Your task to perform on an android device: Open internet settings Image 0: 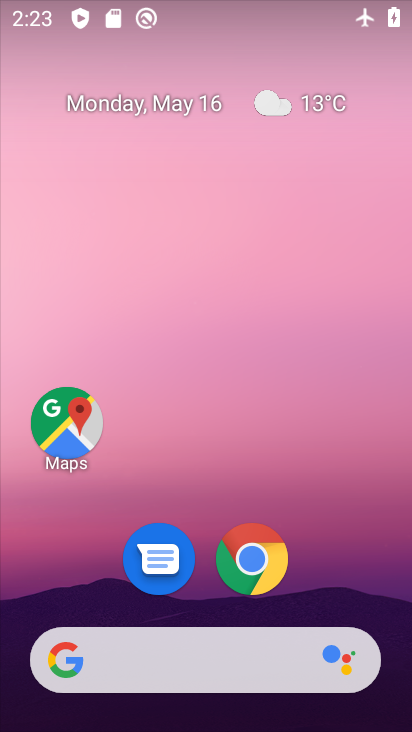
Step 0: drag from (222, 612) to (176, 18)
Your task to perform on an android device: Open internet settings Image 1: 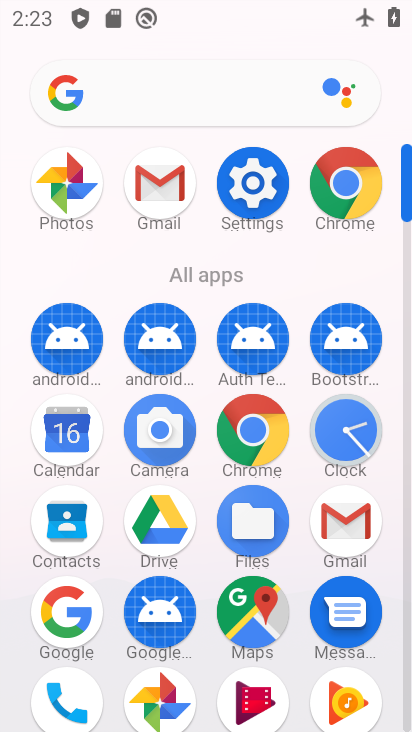
Step 1: click (267, 195)
Your task to perform on an android device: Open internet settings Image 2: 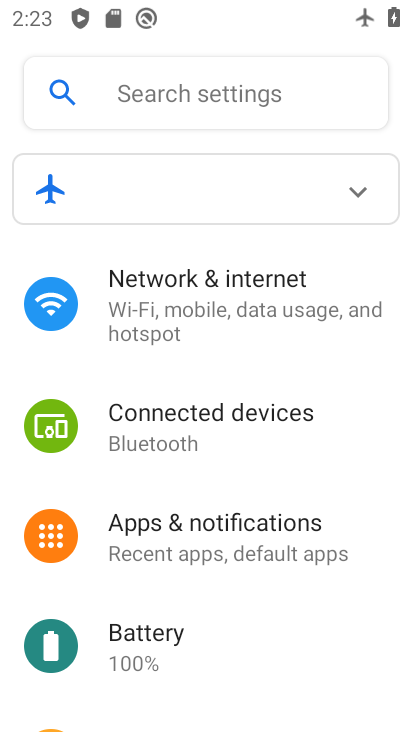
Step 2: click (166, 306)
Your task to perform on an android device: Open internet settings Image 3: 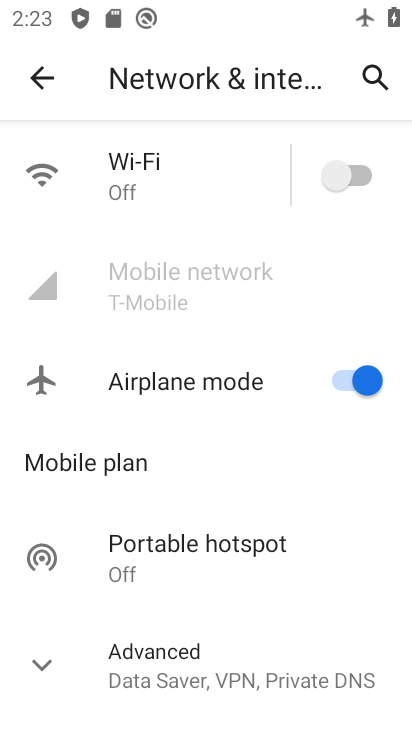
Step 3: drag from (233, 544) to (165, 164)
Your task to perform on an android device: Open internet settings Image 4: 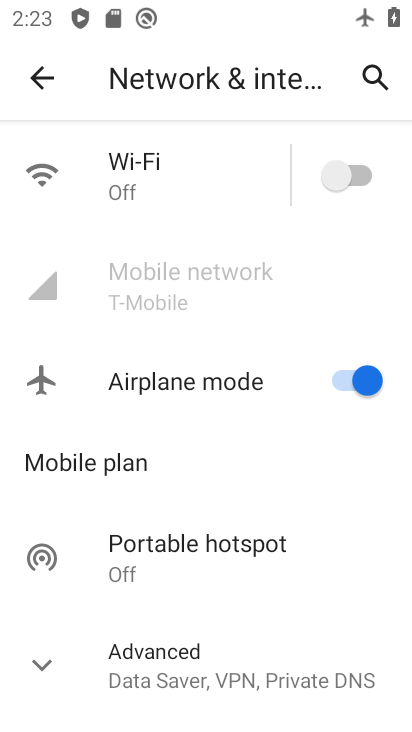
Step 4: click (179, 659)
Your task to perform on an android device: Open internet settings Image 5: 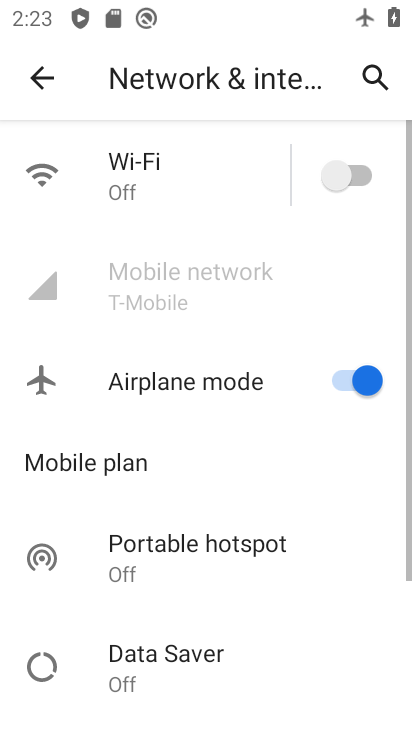
Step 5: task complete